Your task to perform on an android device: turn on location history Image 0: 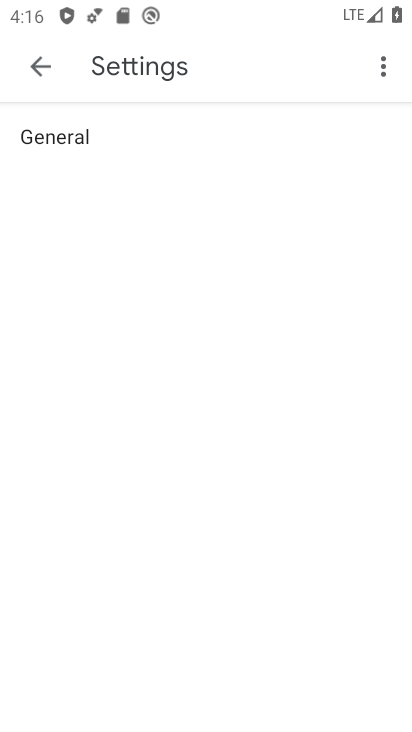
Step 0: press home button
Your task to perform on an android device: turn on location history Image 1: 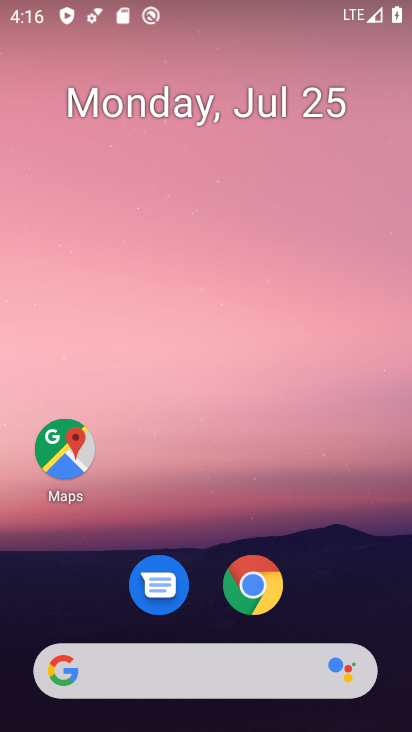
Step 1: drag from (300, 533) to (286, 98)
Your task to perform on an android device: turn on location history Image 2: 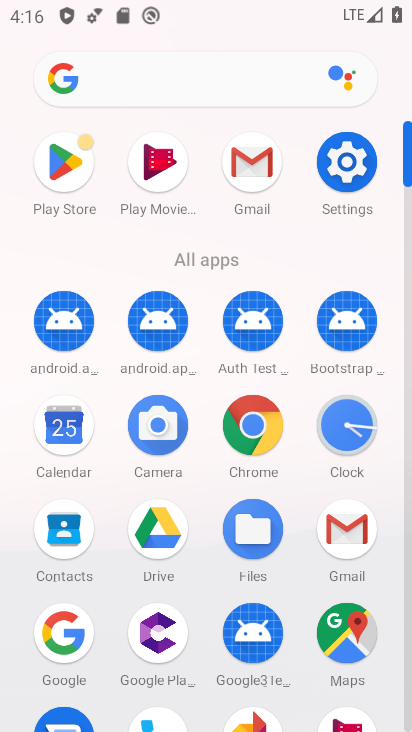
Step 2: click (356, 156)
Your task to perform on an android device: turn on location history Image 3: 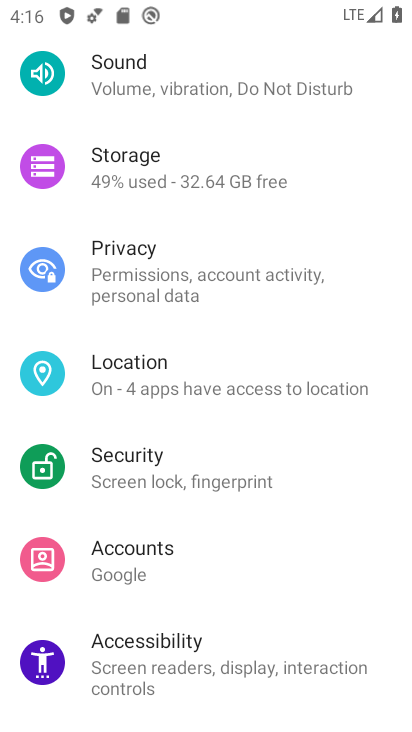
Step 3: click (206, 376)
Your task to perform on an android device: turn on location history Image 4: 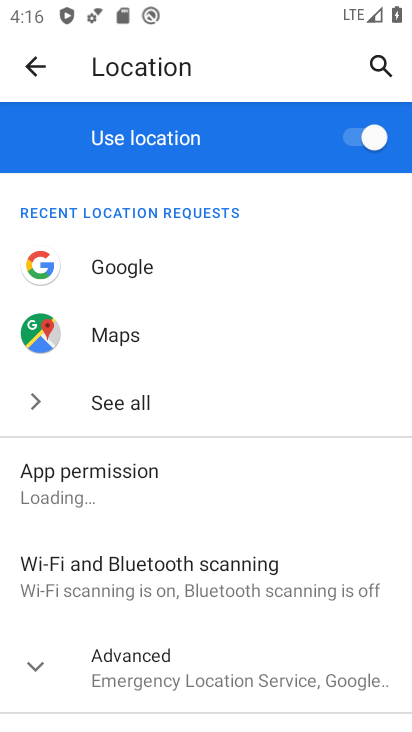
Step 4: drag from (204, 494) to (227, 188)
Your task to perform on an android device: turn on location history Image 5: 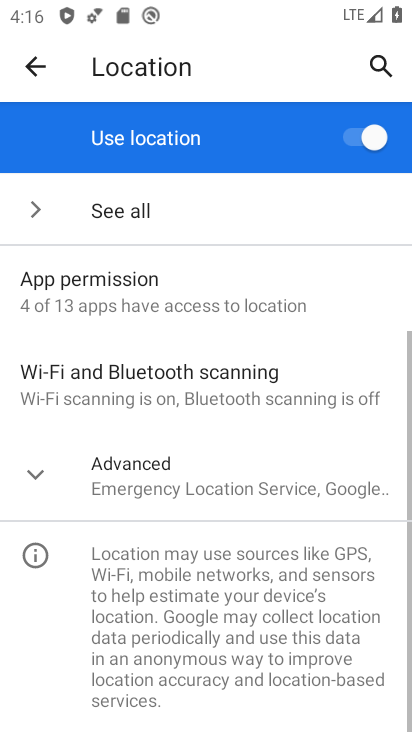
Step 5: click (30, 466)
Your task to perform on an android device: turn on location history Image 6: 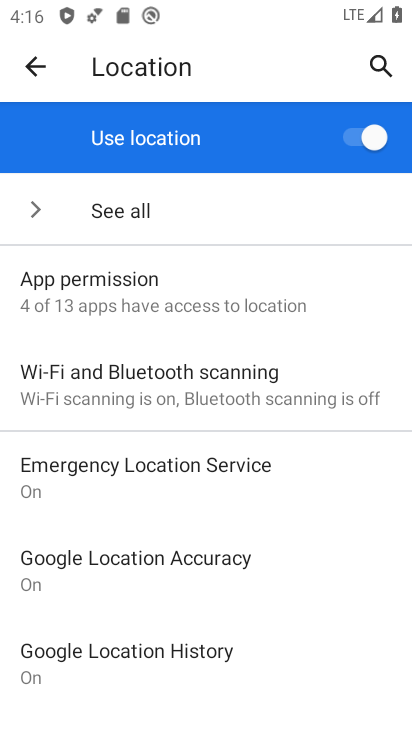
Step 6: click (188, 655)
Your task to perform on an android device: turn on location history Image 7: 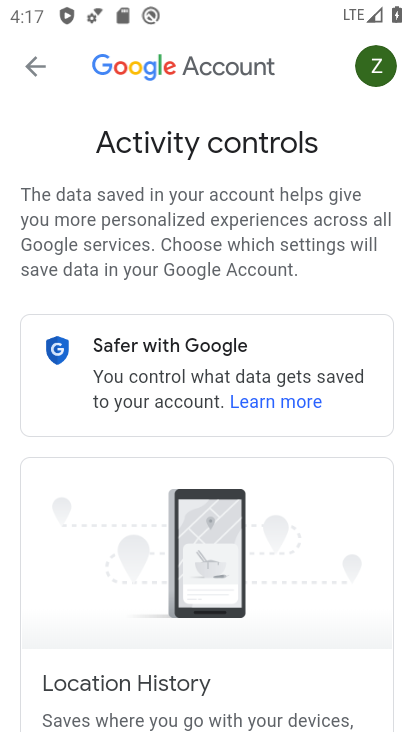
Step 7: drag from (287, 598) to (298, 127)
Your task to perform on an android device: turn on location history Image 8: 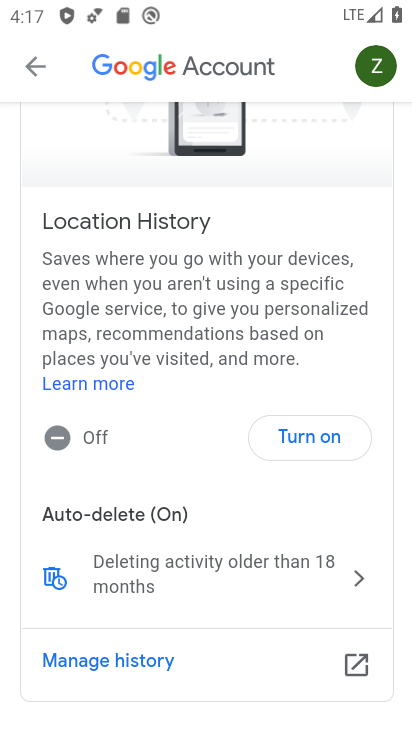
Step 8: click (323, 436)
Your task to perform on an android device: turn on location history Image 9: 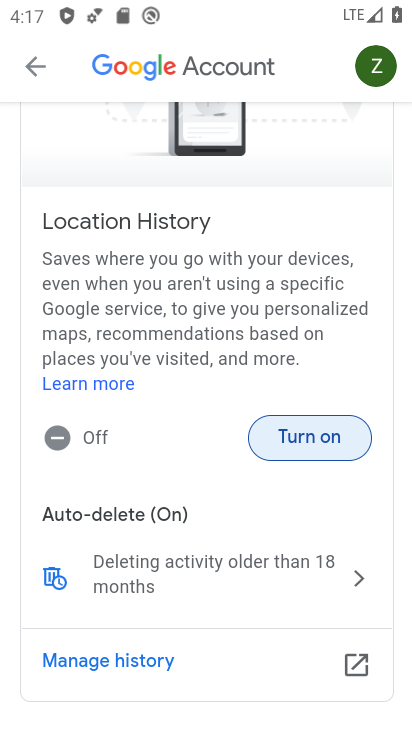
Step 9: click (327, 425)
Your task to perform on an android device: turn on location history Image 10: 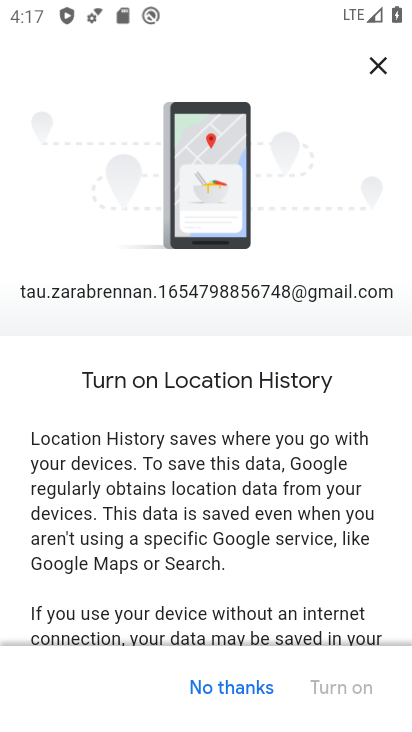
Step 10: drag from (266, 504) to (254, 20)
Your task to perform on an android device: turn on location history Image 11: 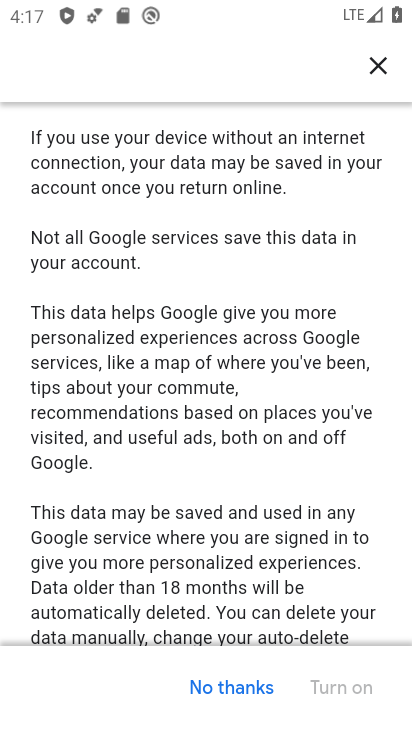
Step 11: drag from (257, 460) to (267, 87)
Your task to perform on an android device: turn on location history Image 12: 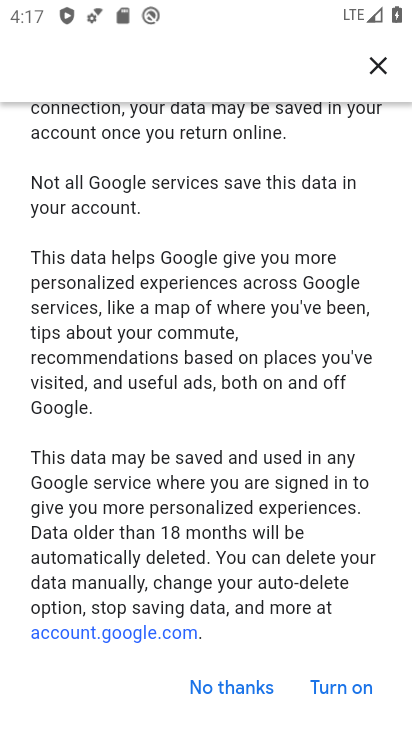
Step 12: drag from (300, 435) to (282, 305)
Your task to perform on an android device: turn on location history Image 13: 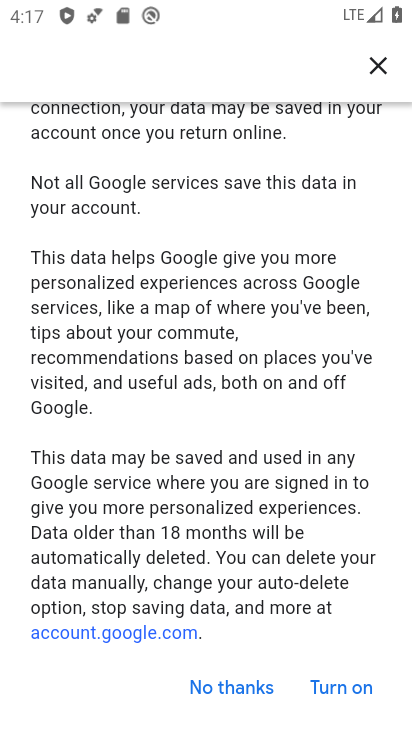
Step 13: click (351, 682)
Your task to perform on an android device: turn on location history Image 14: 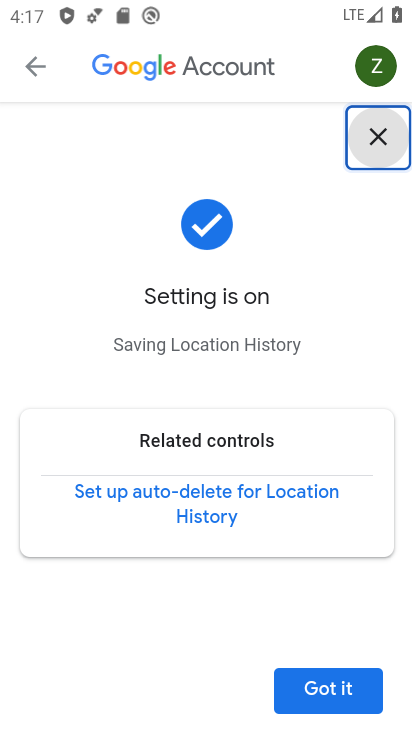
Step 14: click (363, 691)
Your task to perform on an android device: turn on location history Image 15: 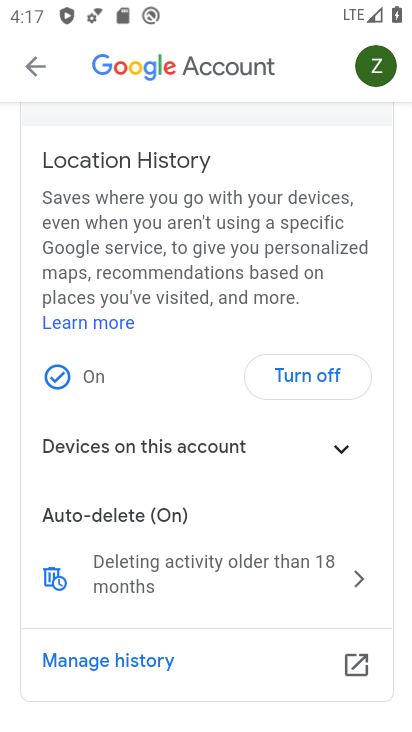
Step 15: task complete